Your task to perform on an android device: Open eBay Image 0: 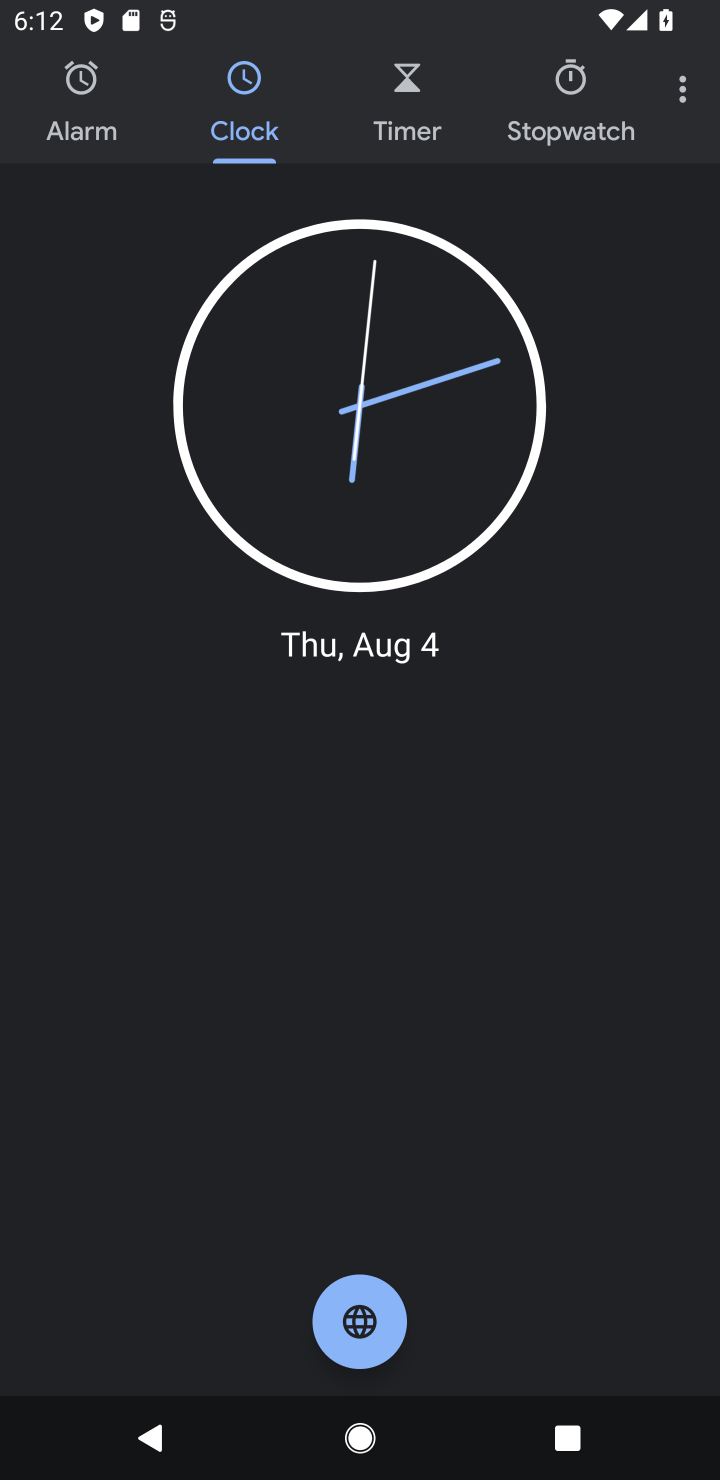
Step 0: press home button
Your task to perform on an android device: Open eBay Image 1: 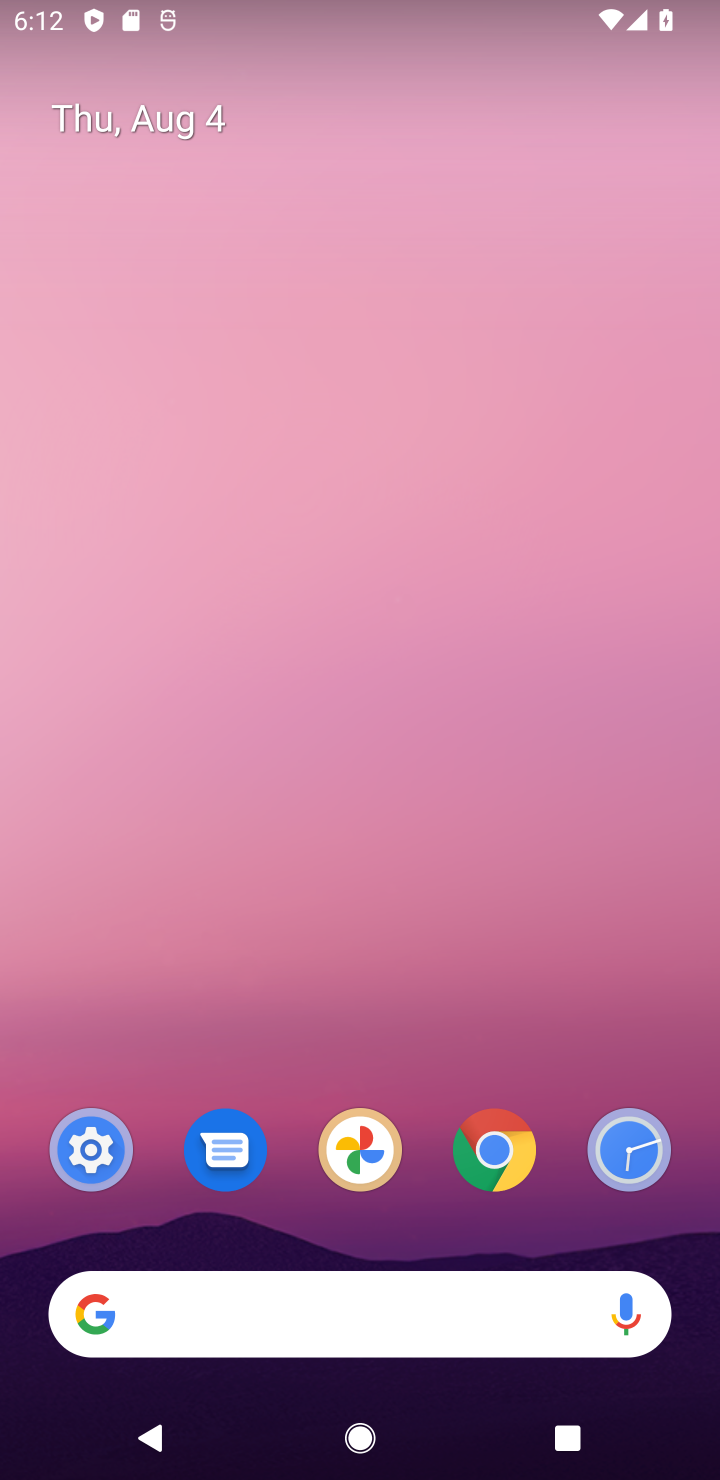
Step 1: drag from (458, 1240) to (654, 3)
Your task to perform on an android device: Open eBay Image 2: 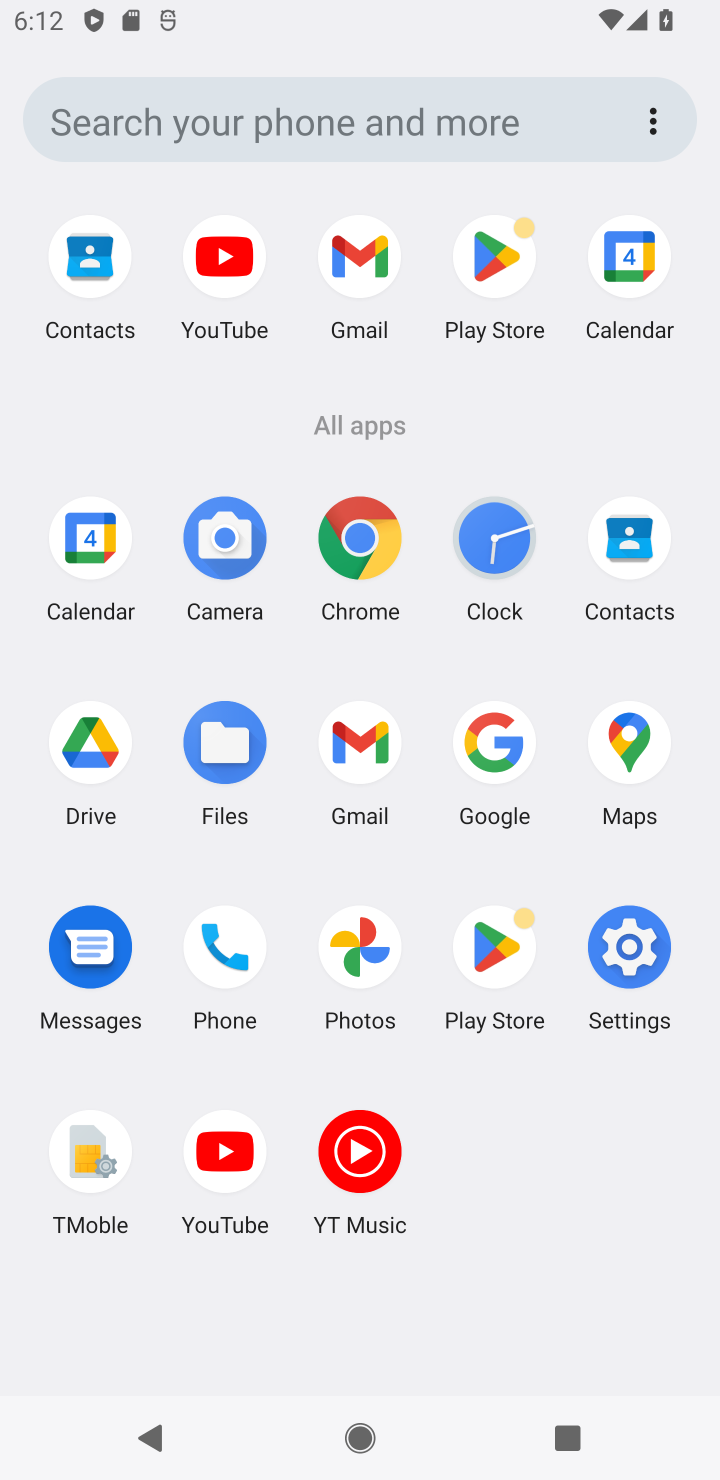
Step 2: click (357, 525)
Your task to perform on an android device: Open eBay Image 3: 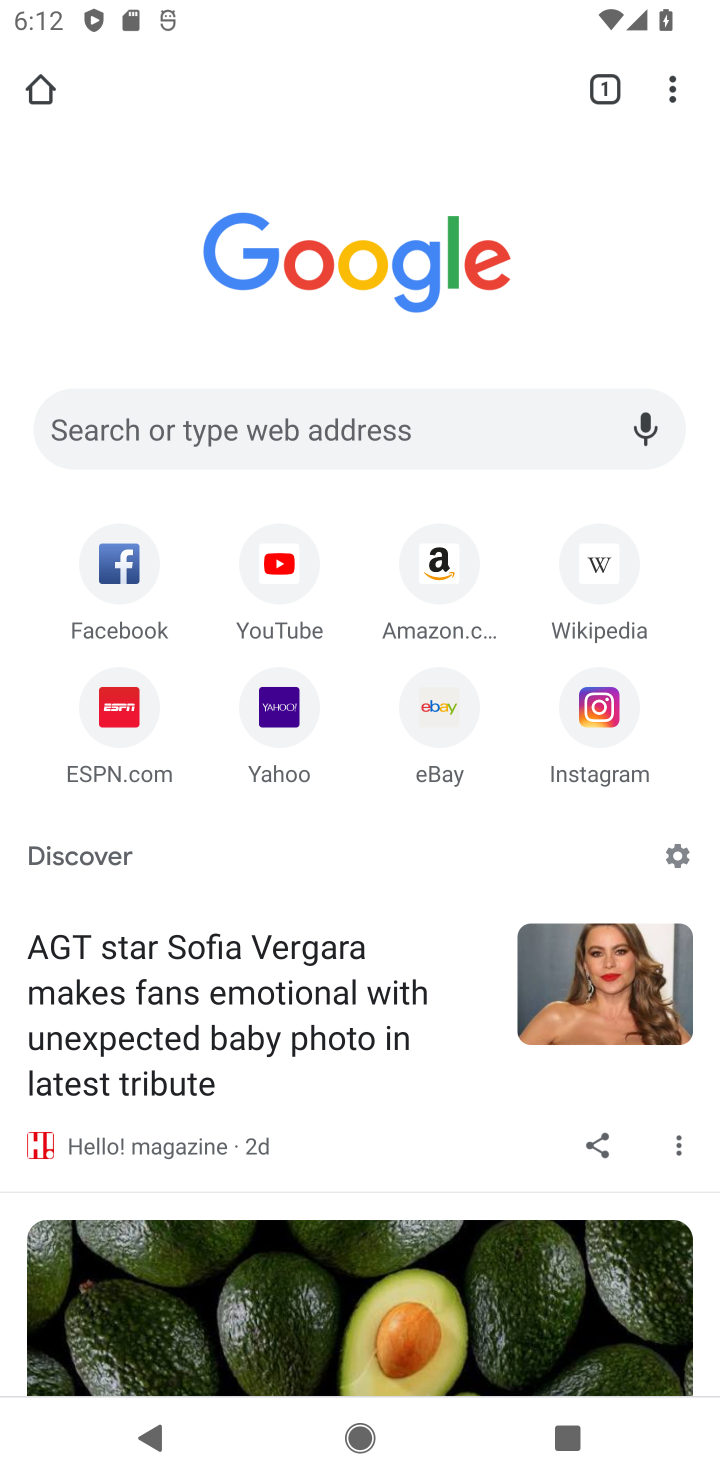
Step 3: click (435, 721)
Your task to perform on an android device: Open eBay Image 4: 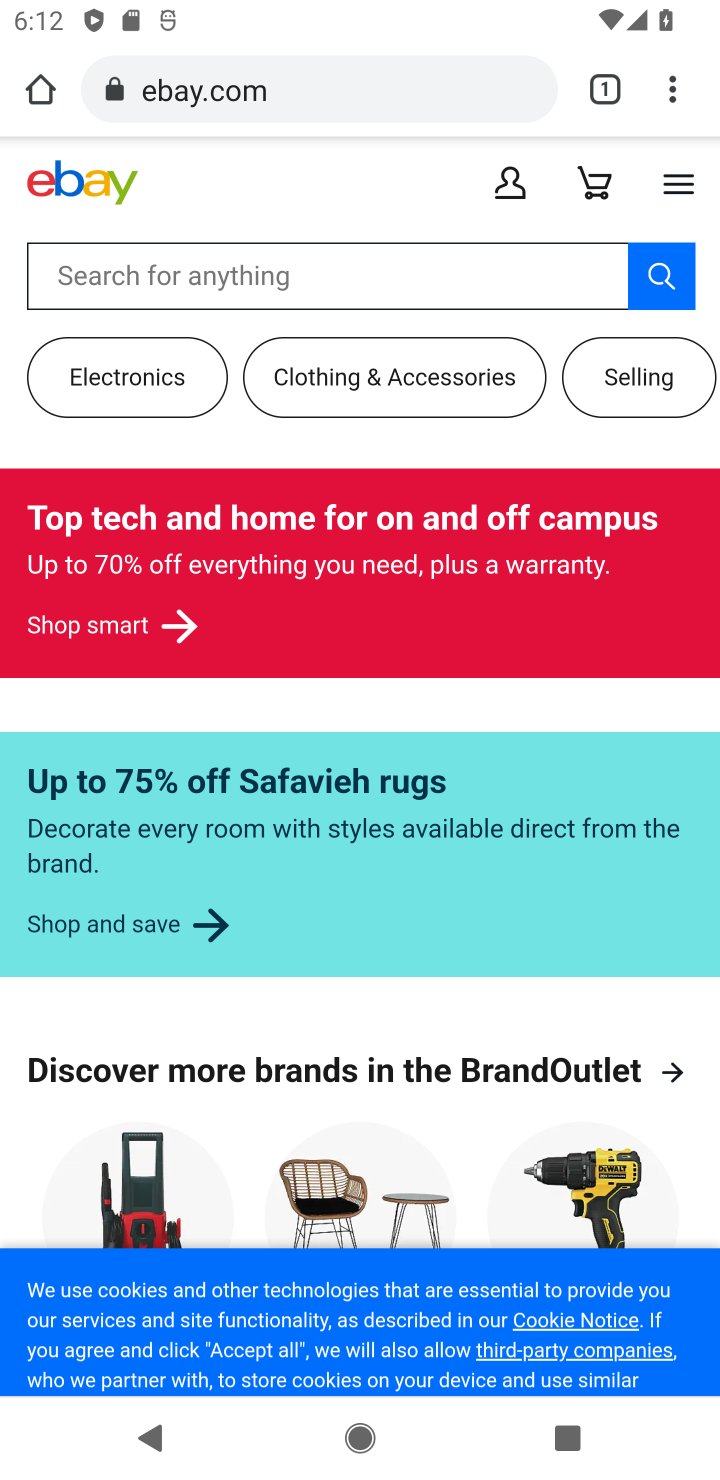
Step 4: task complete